Your task to perform on an android device: Open privacy settings Image 0: 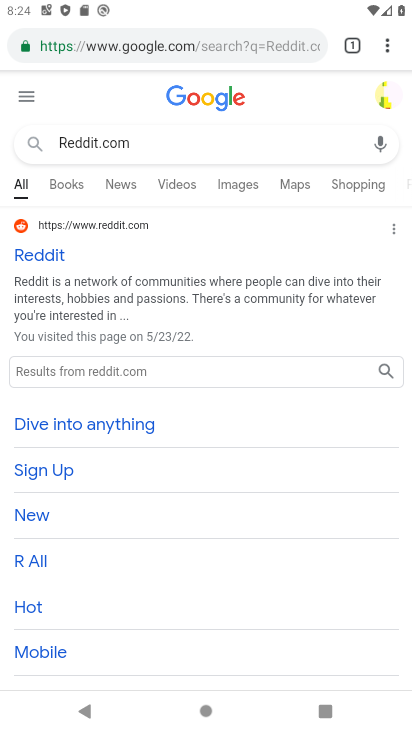
Step 0: press home button
Your task to perform on an android device: Open privacy settings Image 1: 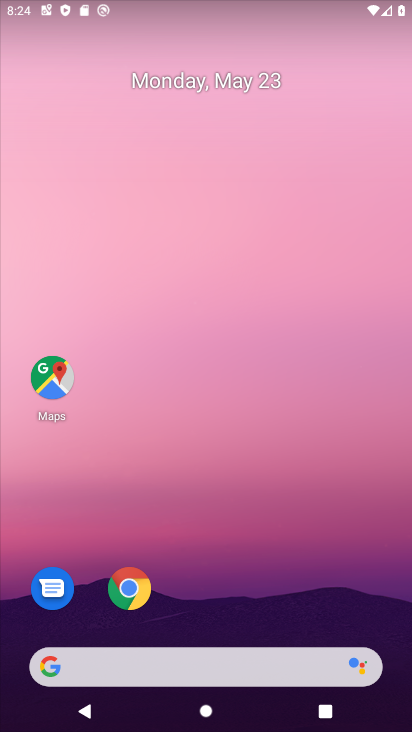
Step 1: click (133, 584)
Your task to perform on an android device: Open privacy settings Image 2: 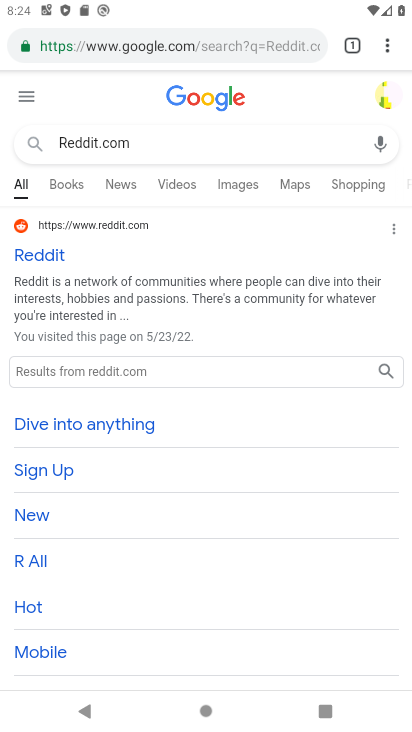
Step 2: click (386, 44)
Your task to perform on an android device: Open privacy settings Image 3: 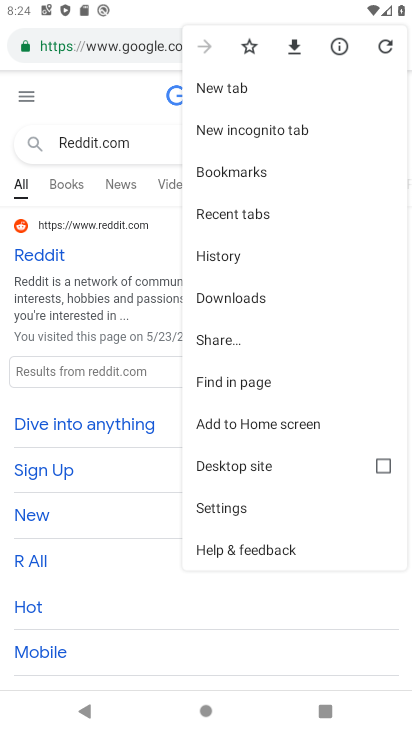
Step 3: click (219, 510)
Your task to perform on an android device: Open privacy settings Image 4: 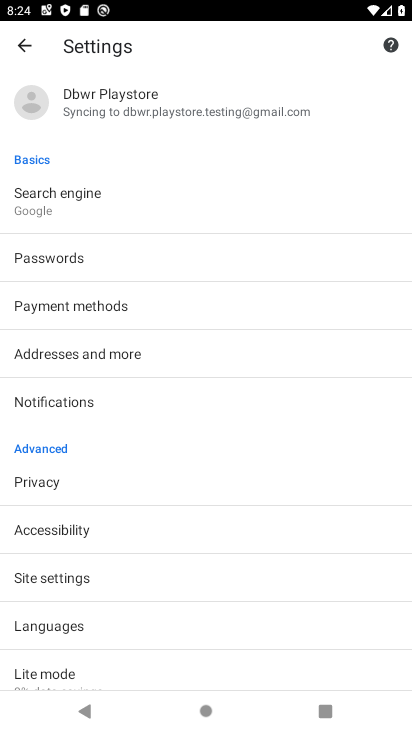
Step 4: click (35, 479)
Your task to perform on an android device: Open privacy settings Image 5: 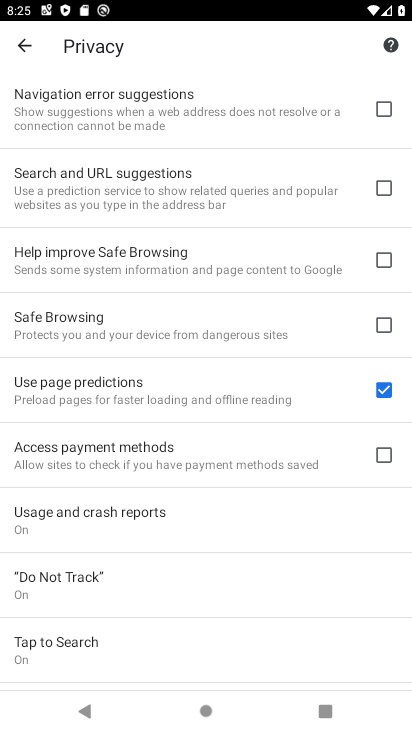
Step 5: task complete